Your task to perform on an android device: What's the weather today? Image 0: 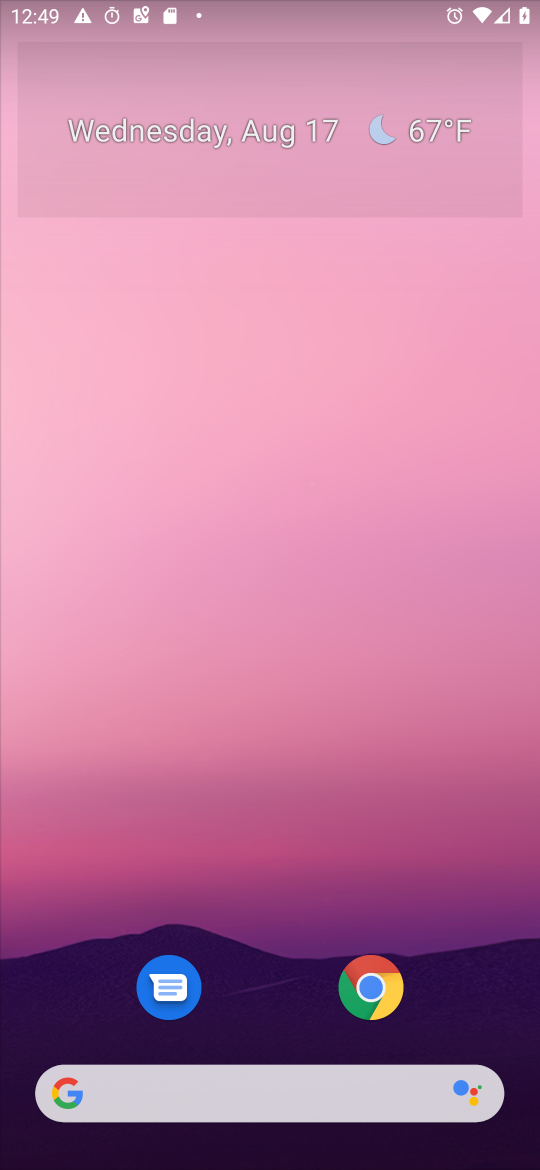
Step 0: click (128, 1086)
Your task to perform on an android device: What's the weather today? Image 1: 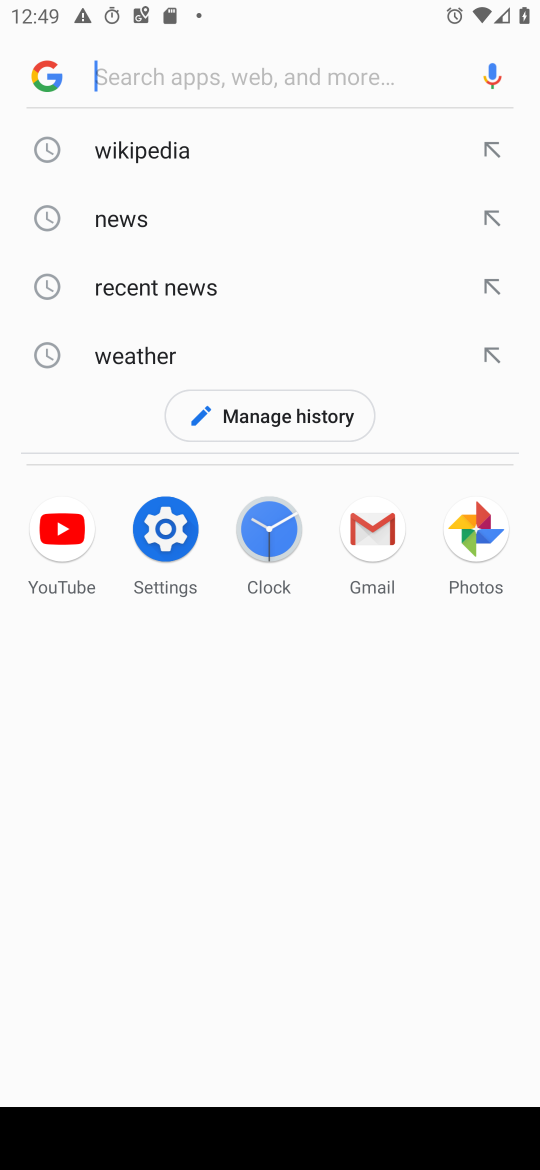
Step 1: type "What's the weather today?"
Your task to perform on an android device: What's the weather today? Image 2: 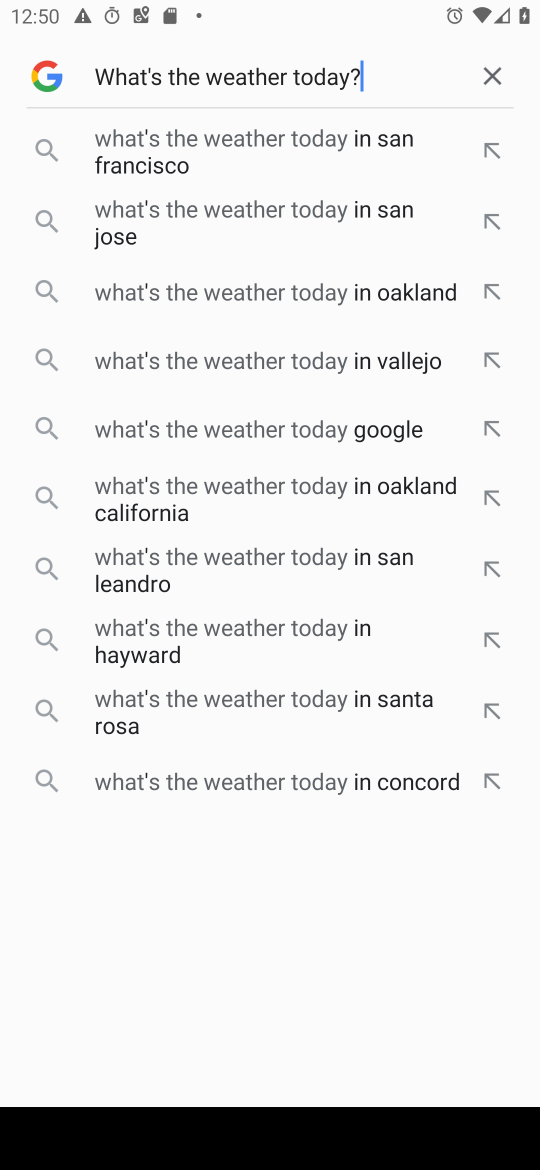
Step 2: task complete